Your task to perform on an android device: add a contact Image 0: 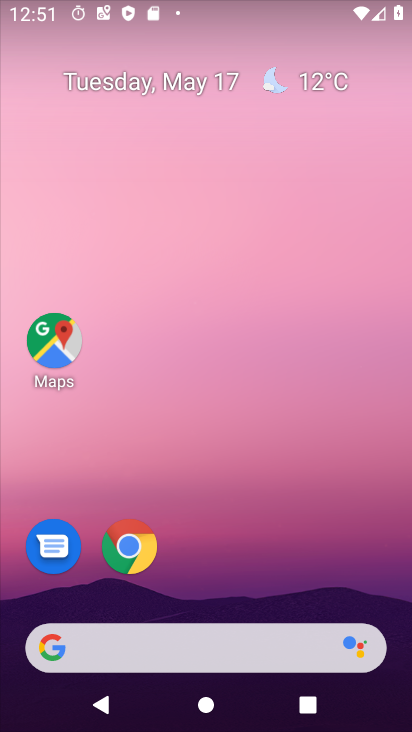
Step 0: drag from (185, 635) to (381, 167)
Your task to perform on an android device: add a contact Image 1: 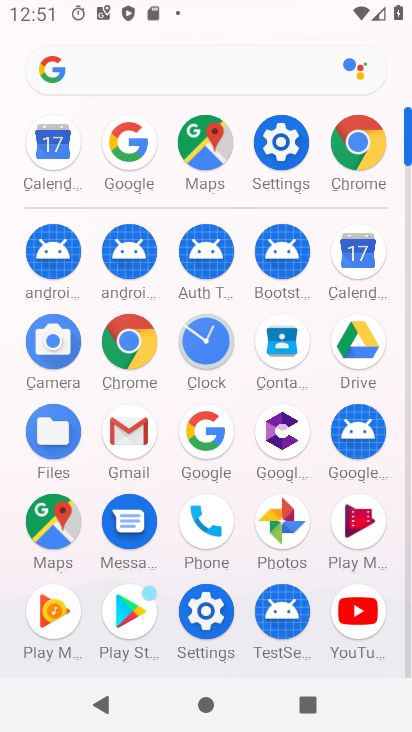
Step 1: click (282, 351)
Your task to perform on an android device: add a contact Image 2: 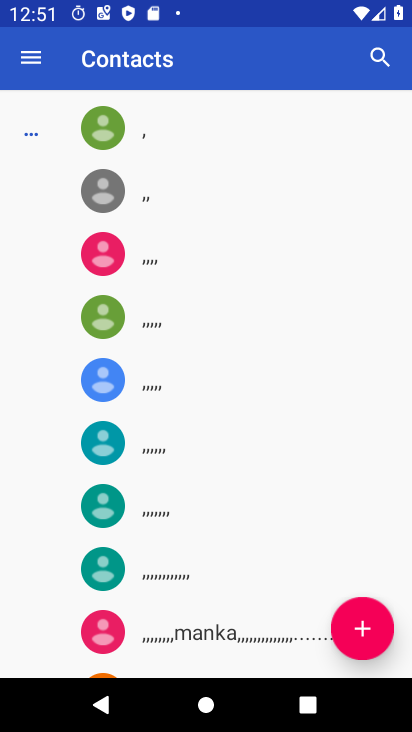
Step 2: click (353, 625)
Your task to perform on an android device: add a contact Image 3: 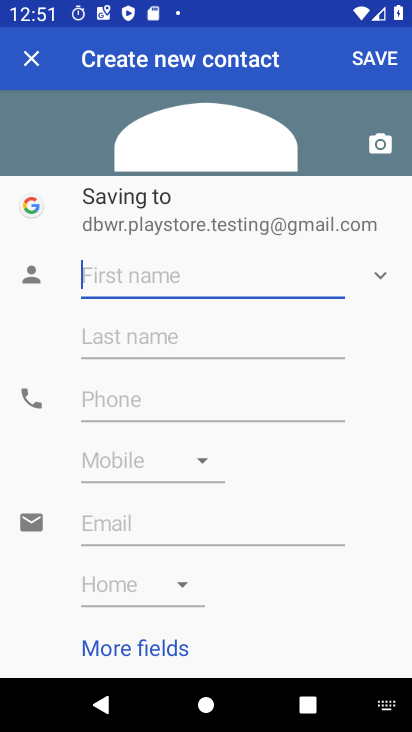
Step 3: type "muuttrdcx"
Your task to perform on an android device: add a contact Image 4: 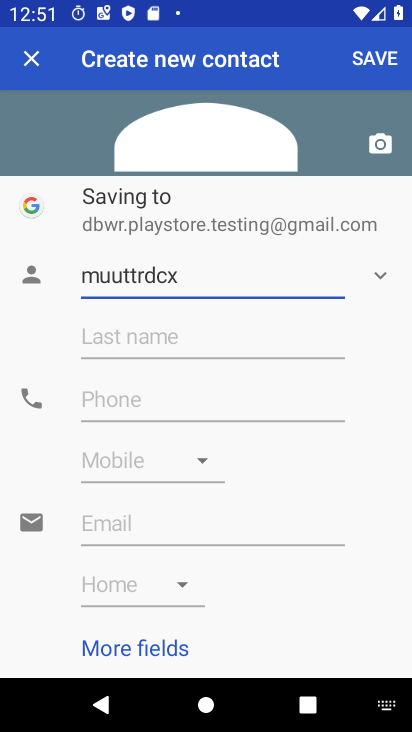
Step 4: click (131, 394)
Your task to perform on an android device: add a contact Image 5: 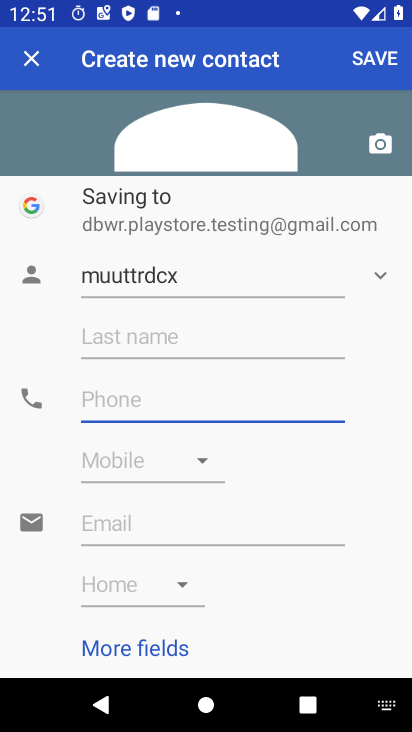
Step 5: type "643377788"
Your task to perform on an android device: add a contact Image 6: 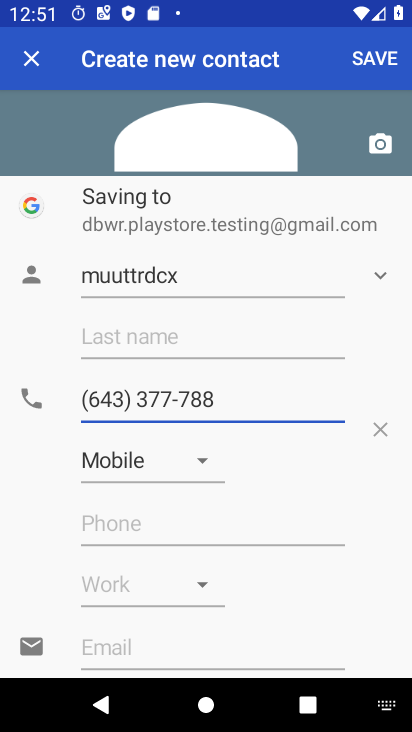
Step 6: click (377, 57)
Your task to perform on an android device: add a contact Image 7: 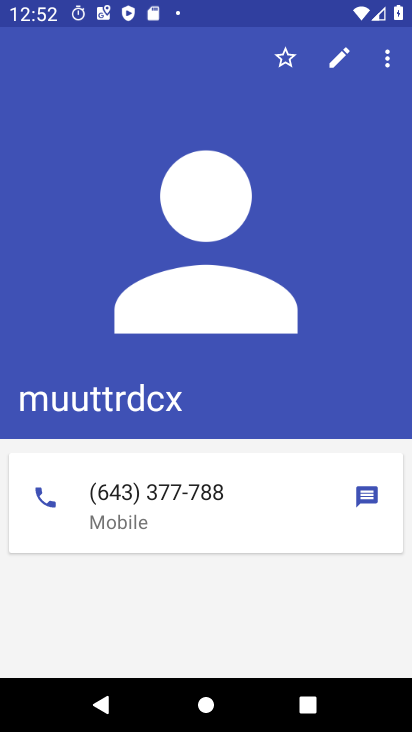
Step 7: task complete